Your task to perform on an android device: Open Amazon Image 0: 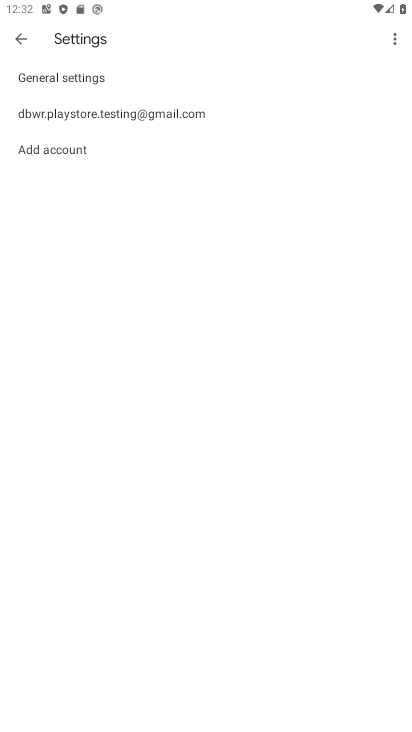
Step 0: press back button
Your task to perform on an android device: Open Amazon Image 1: 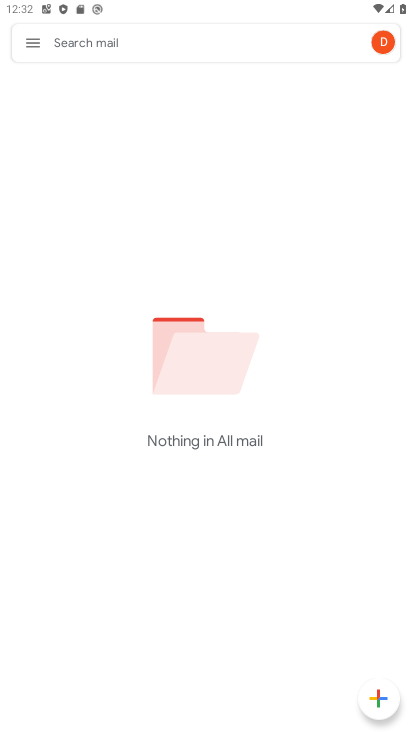
Step 1: press back button
Your task to perform on an android device: Open Amazon Image 2: 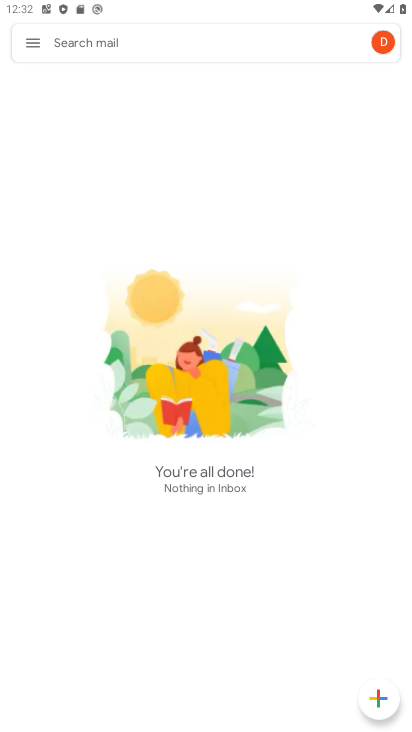
Step 2: press back button
Your task to perform on an android device: Open Amazon Image 3: 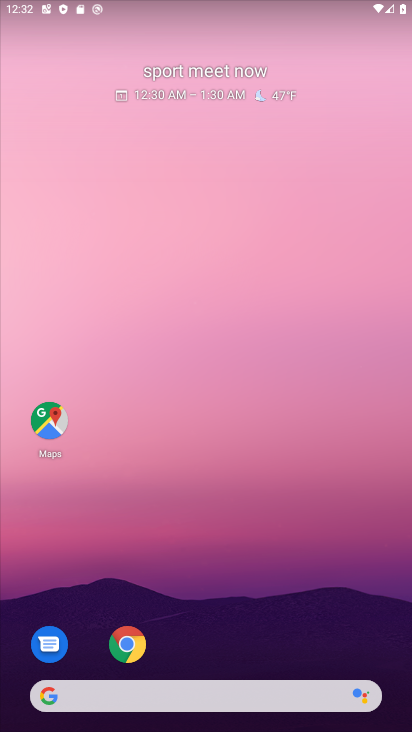
Step 3: click (132, 651)
Your task to perform on an android device: Open Amazon Image 4: 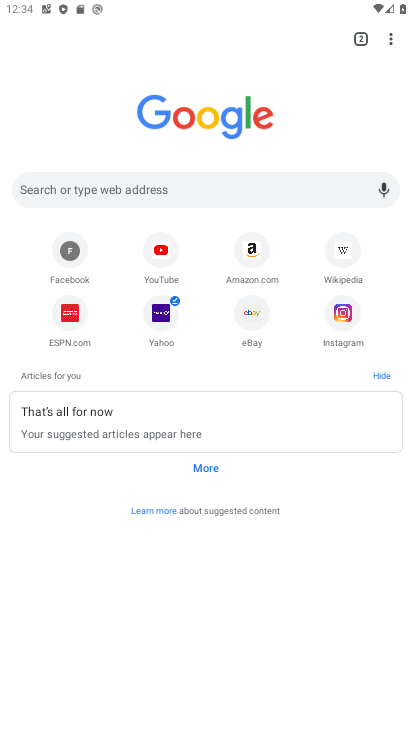
Step 4: click (260, 254)
Your task to perform on an android device: Open Amazon Image 5: 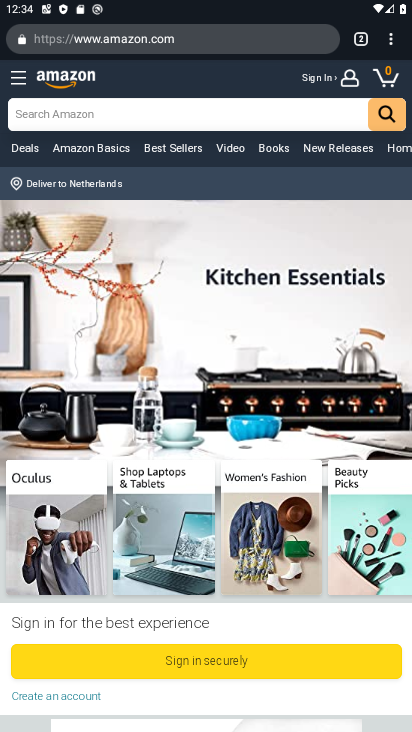
Step 5: task complete